Your task to perform on an android device: turn vacation reply on in the gmail app Image 0: 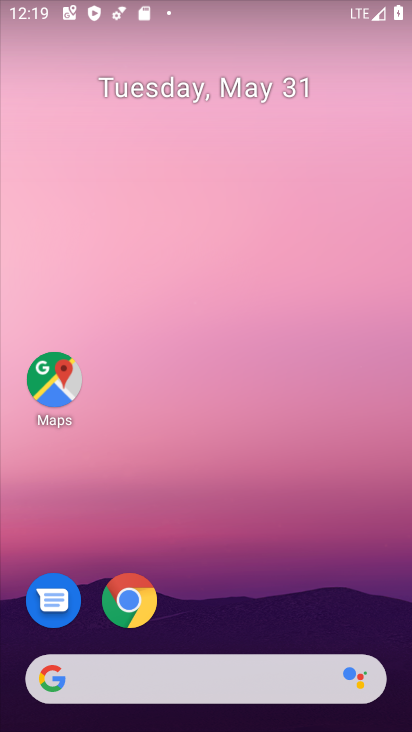
Step 0: drag from (244, 729) to (210, 192)
Your task to perform on an android device: turn vacation reply on in the gmail app Image 1: 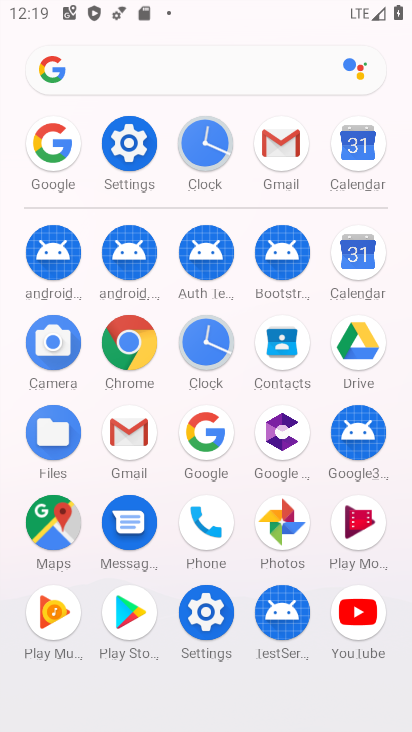
Step 1: click (120, 436)
Your task to perform on an android device: turn vacation reply on in the gmail app Image 2: 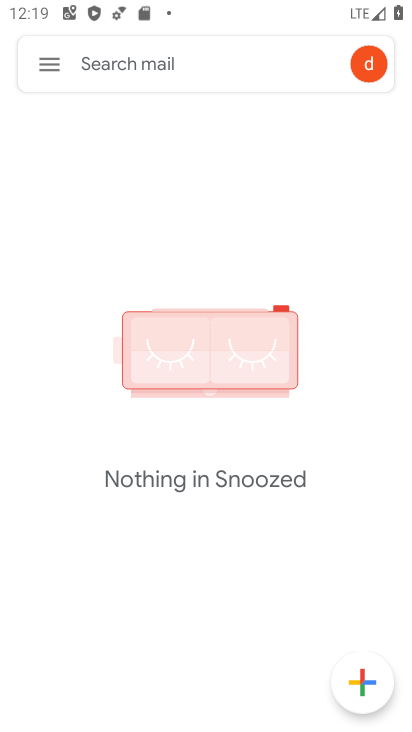
Step 2: click (51, 62)
Your task to perform on an android device: turn vacation reply on in the gmail app Image 3: 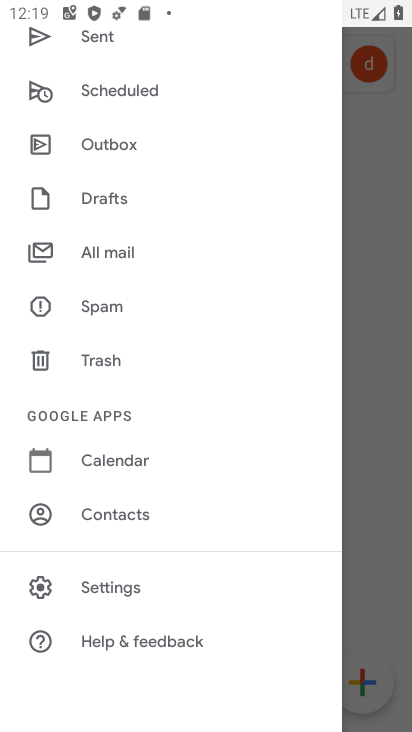
Step 3: click (118, 583)
Your task to perform on an android device: turn vacation reply on in the gmail app Image 4: 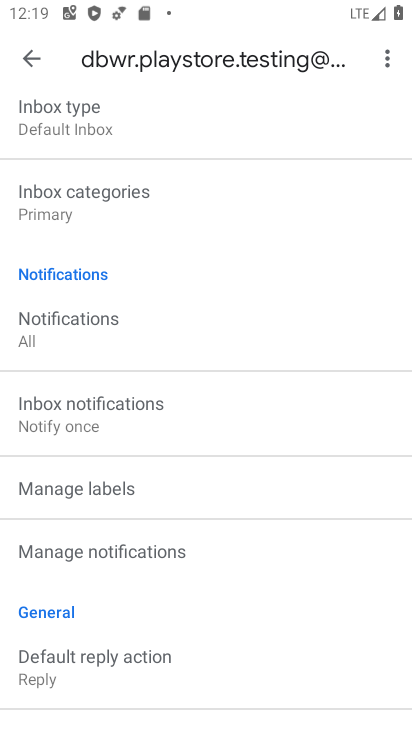
Step 4: click (118, 583)
Your task to perform on an android device: turn vacation reply on in the gmail app Image 5: 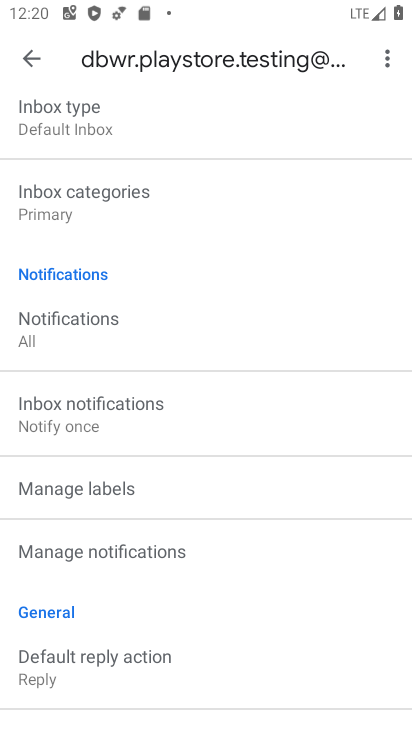
Step 5: drag from (98, 693) to (98, 609)
Your task to perform on an android device: turn vacation reply on in the gmail app Image 6: 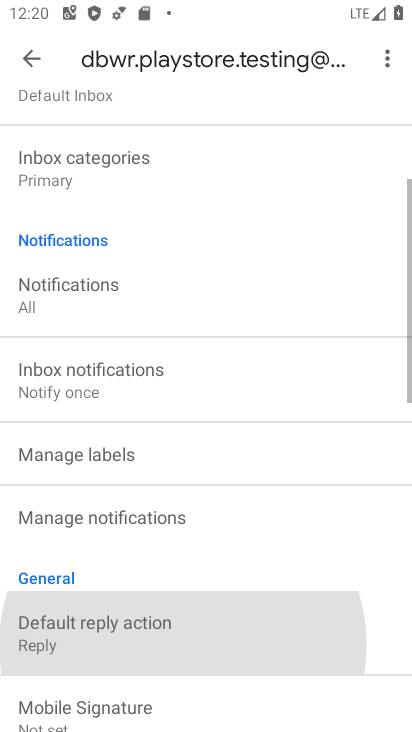
Step 6: drag from (98, 510) to (98, 209)
Your task to perform on an android device: turn vacation reply on in the gmail app Image 7: 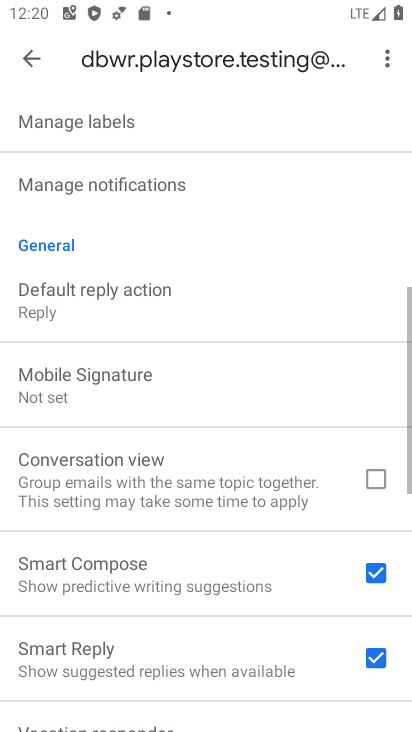
Step 7: drag from (128, 703) to (130, 159)
Your task to perform on an android device: turn vacation reply on in the gmail app Image 8: 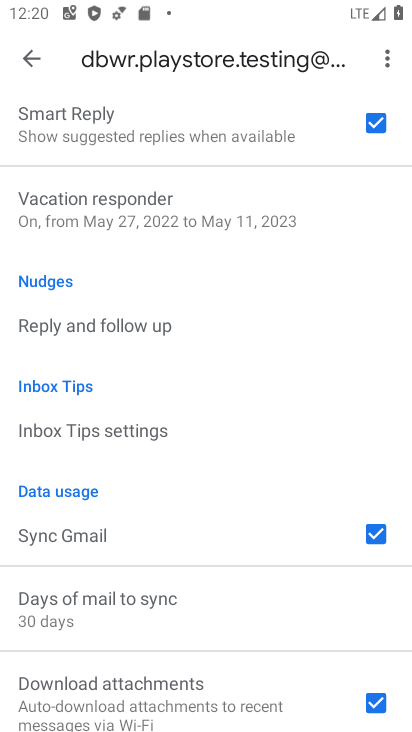
Step 8: drag from (145, 688) to (145, 212)
Your task to perform on an android device: turn vacation reply on in the gmail app Image 9: 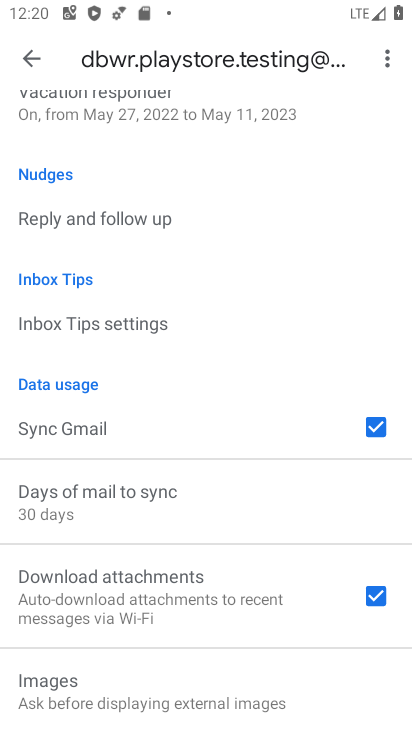
Step 9: drag from (179, 153) to (180, 512)
Your task to perform on an android device: turn vacation reply on in the gmail app Image 10: 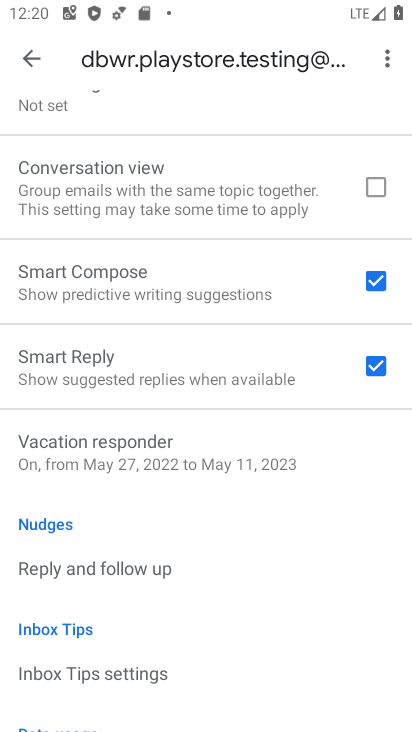
Step 10: click (97, 451)
Your task to perform on an android device: turn vacation reply on in the gmail app Image 11: 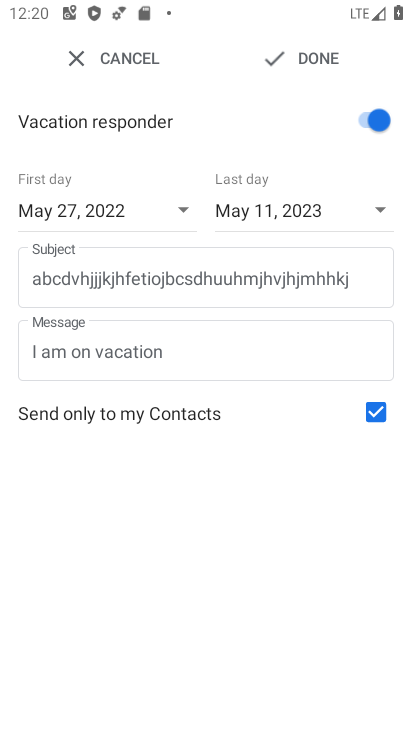
Step 11: task complete